Your task to perform on an android device: turn off translation in the chrome app Image 0: 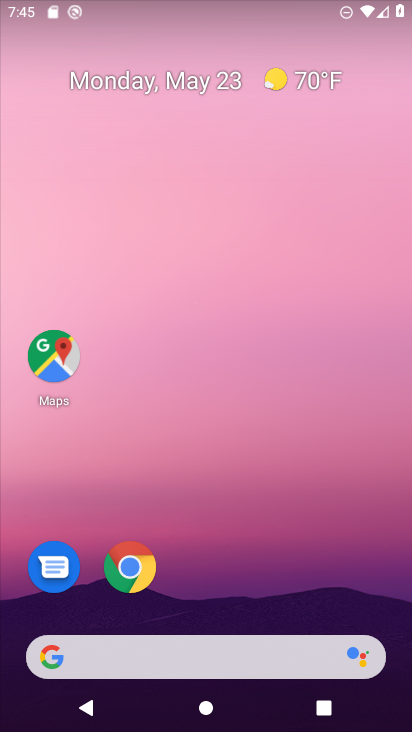
Step 0: drag from (188, 599) to (283, 88)
Your task to perform on an android device: turn off translation in the chrome app Image 1: 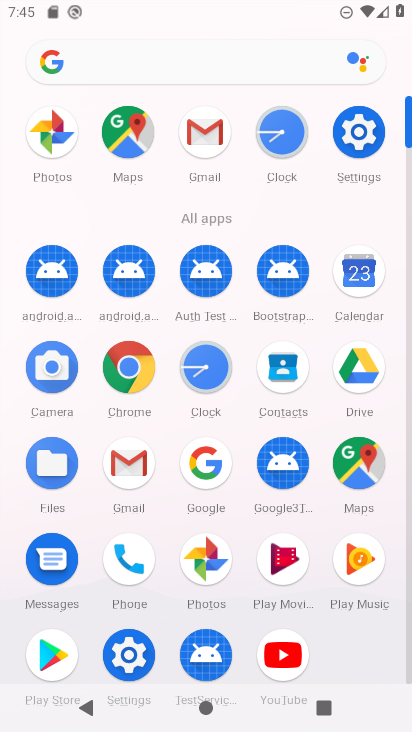
Step 1: click (128, 358)
Your task to perform on an android device: turn off translation in the chrome app Image 2: 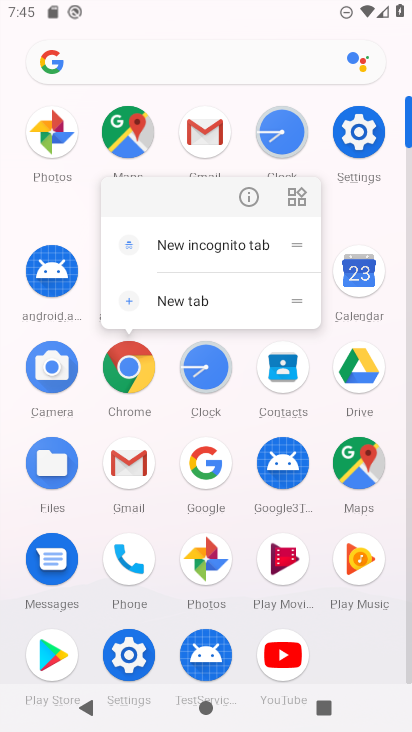
Step 2: click (256, 183)
Your task to perform on an android device: turn off translation in the chrome app Image 3: 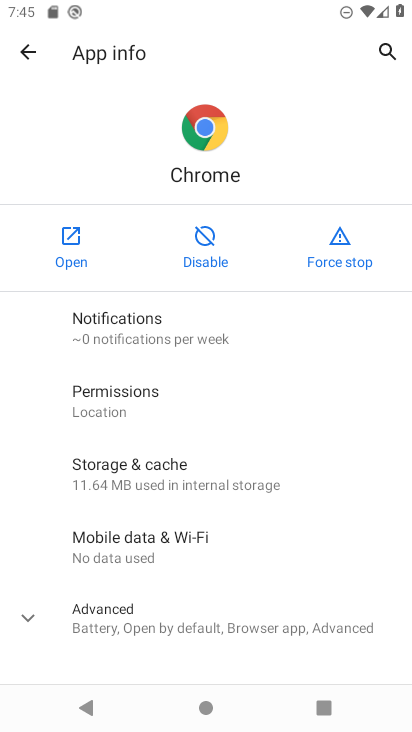
Step 3: click (65, 256)
Your task to perform on an android device: turn off translation in the chrome app Image 4: 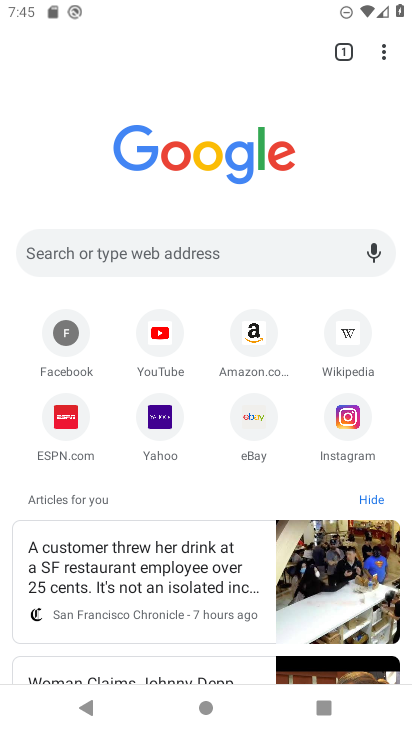
Step 4: drag from (233, 510) to (266, 171)
Your task to perform on an android device: turn off translation in the chrome app Image 5: 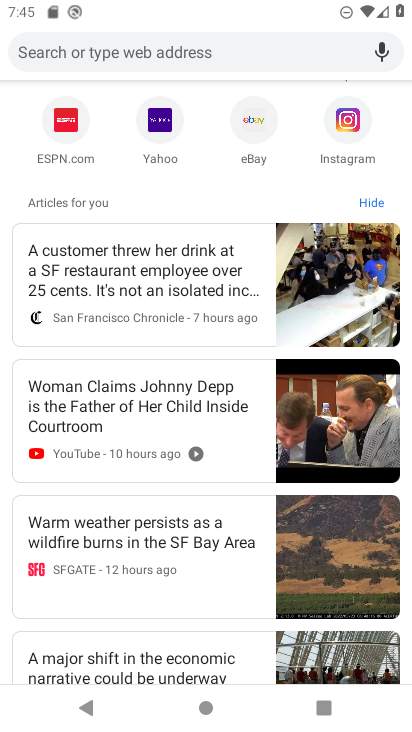
Step 5: drag from (210, 135) to (234, 713)
Your task to perform on an android device: turn off translation in the chrome app Image 6: 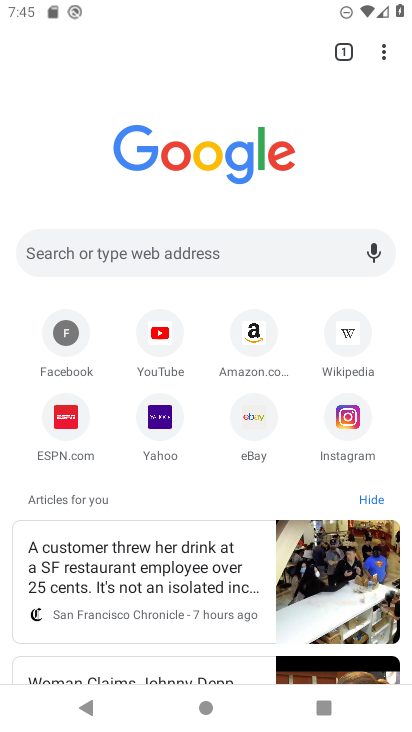
Step 6: click (382, 43)
Your task to perform on an android device: turn off translation in the chrome app Image 7: 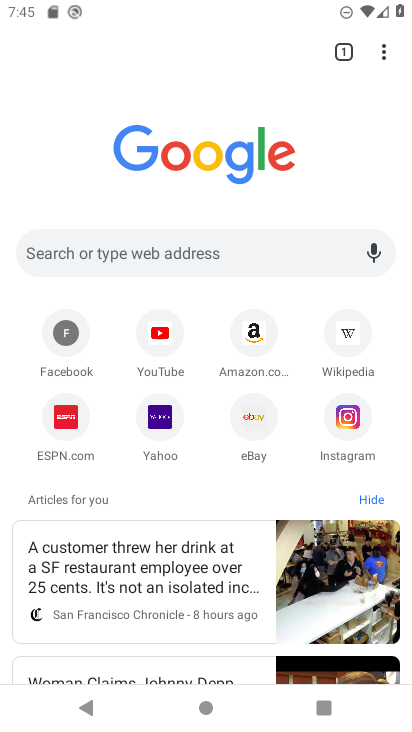
Step 7: click (384, 41)
Your task to perform on an android device: turn off translation in the chrome app Image 8: 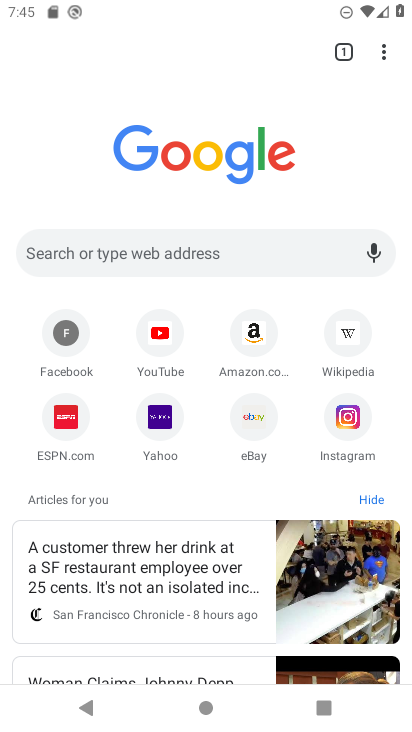
Step 8: click (385, 48)
Your task to perform on an android device: turn off translation in the chrome app Image 9: 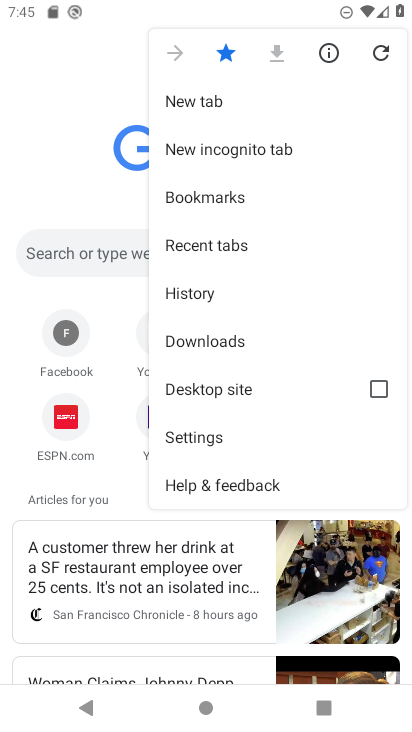
Step 9: click (209, 444)
Your task to perform on an android device: turn off translation in the chrome app Image 10: 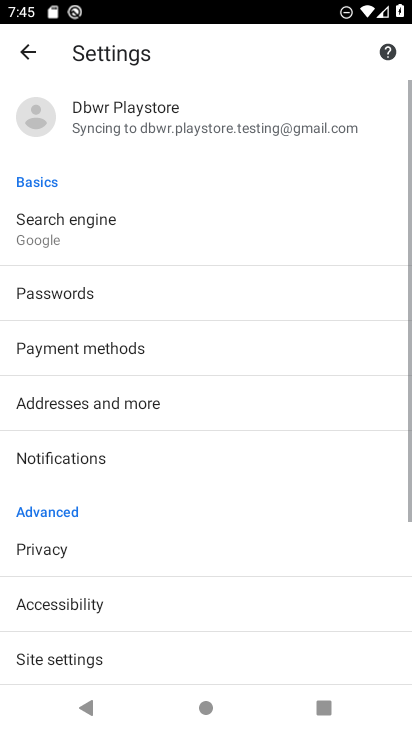
Step 10: drag from (133, 648) to (299, 213)
Your task to perform on an android device: turn off translation in the chrome app Image 11: 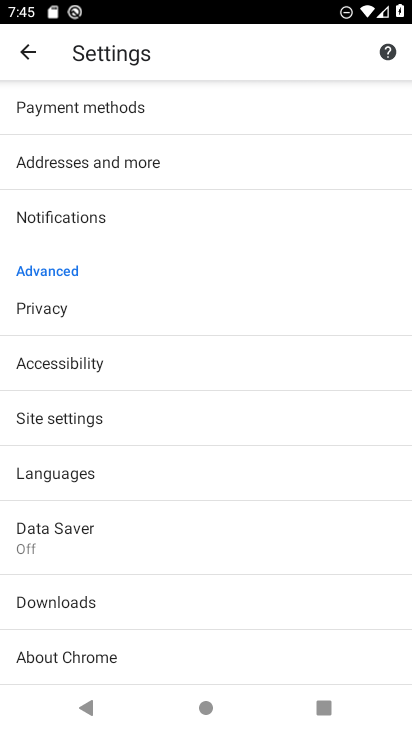
Step 11: drag from (109, 640) to (215, 259)
Your task to perform on an android device: turn off translation in the chrome app Image 12: 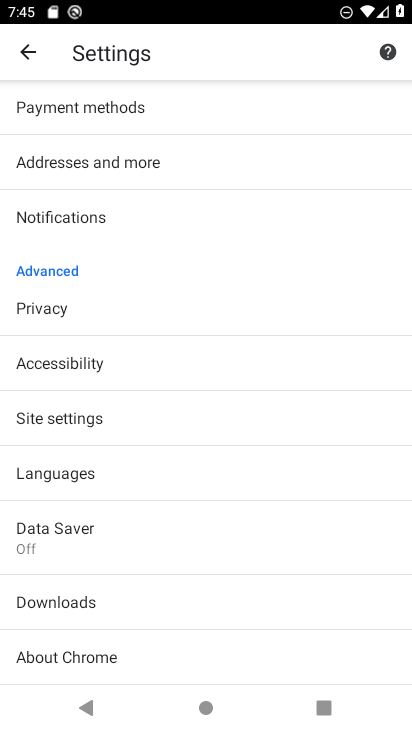
Step 12: click (92, 482)
Your task to perform on an android device: turn off translation in the chrome app Image 13: 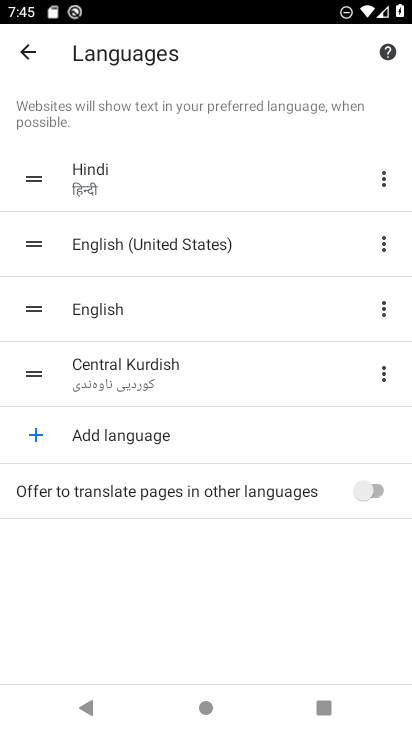
Step 13: task complete